Your task to perform on an android device: What's the weather going to be tomorrow? Image 0: 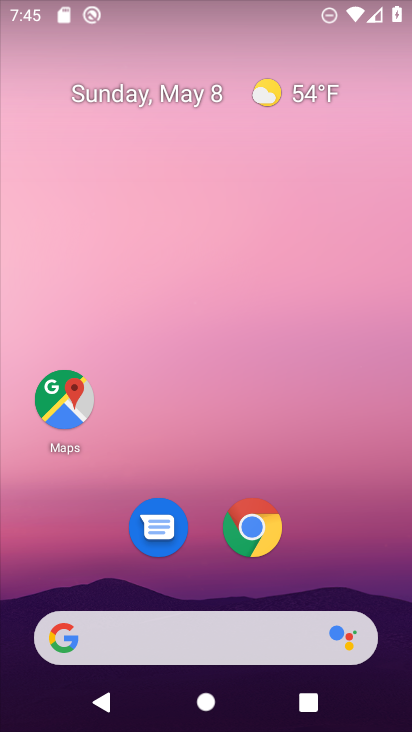
Step 0: click (298, 90)
Your task to perform on an android device: What's the weather going to be tomorrow? Image 1: 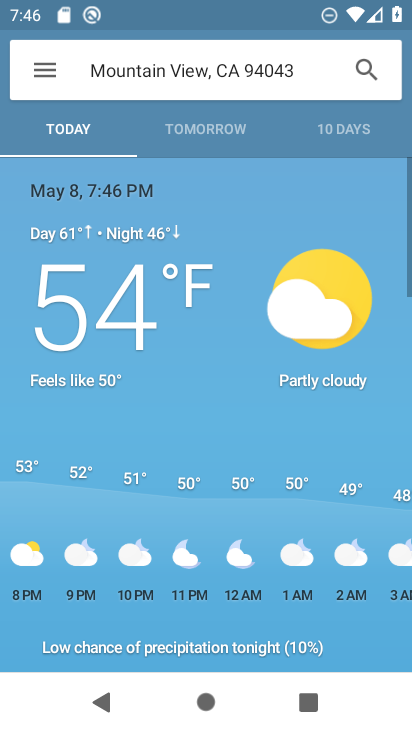
Step 1: click (238, 128)
Your task to perform on an android device: What's the weather going to be tomorrow? Image 2: 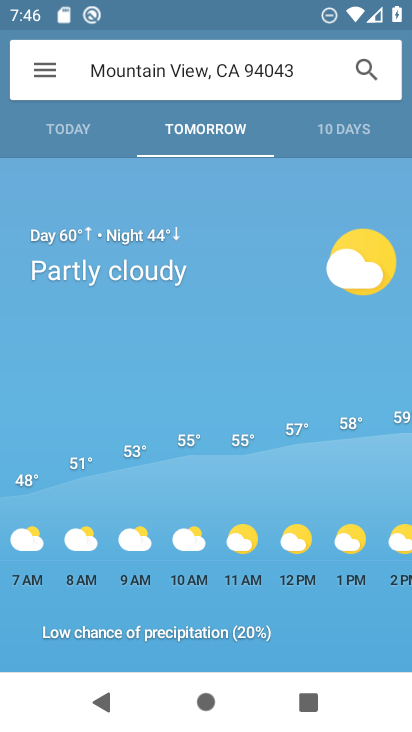
Step 2: task complete